Your task to perform on an android device: install app "Truecaller" Image 0: 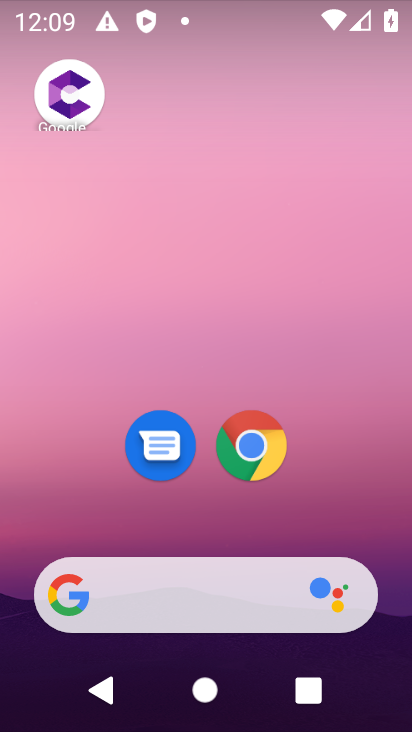
Step 0: drag from (228, 518) to (58, 458)
Your task to perform on an android device: install app "Truecaller" Image 1: 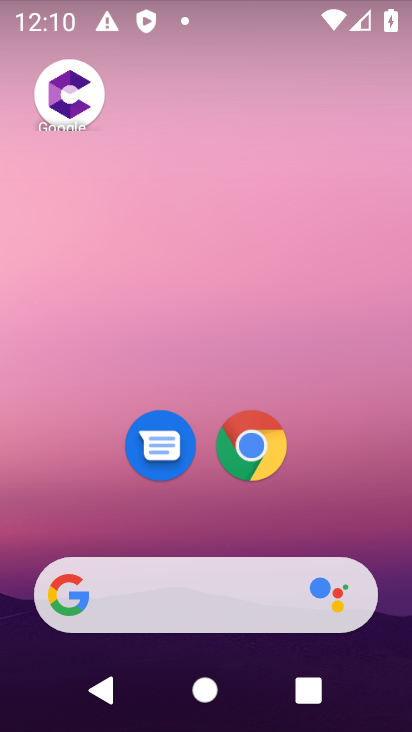
Step 1: drag from (217, 533) to (281, 15)
Your task to perform on an android device: install app "Truecaller" Image 2: 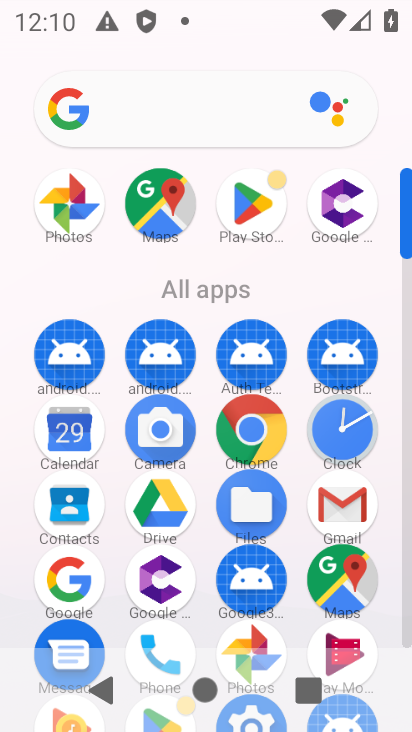
Step 2: drag from (214, 563) to (229, 313)
Your task to perform on an android device: install app "Truecaller" Image 3: 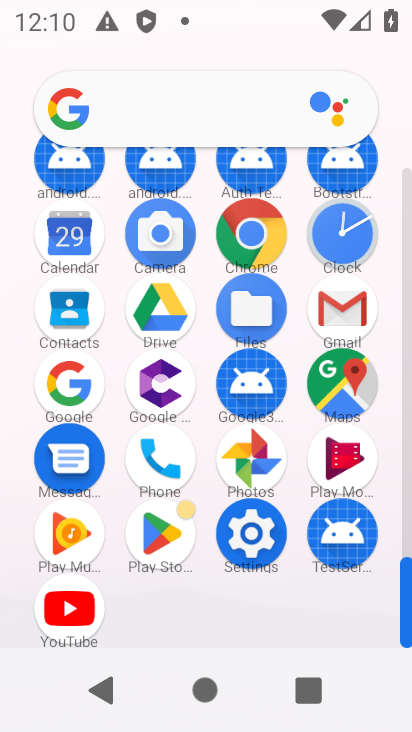
Step 3: click (157, 534)
Your task to perform on an android device: install app "Truecaller" Image 4: 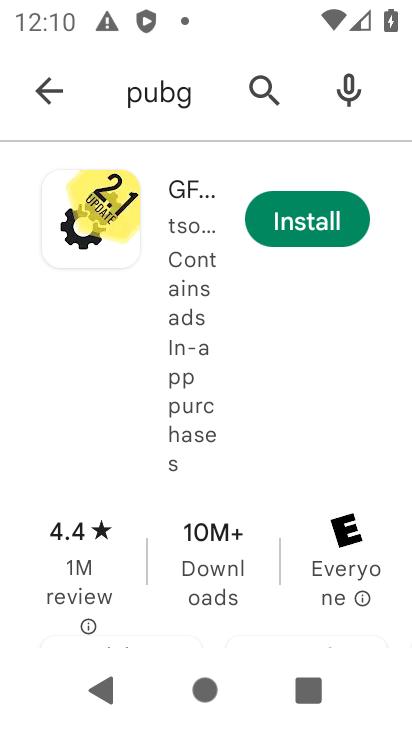
Step 4: click (167, 89)
Your task to perform on an android device: install app "Truecaller" Image 5: 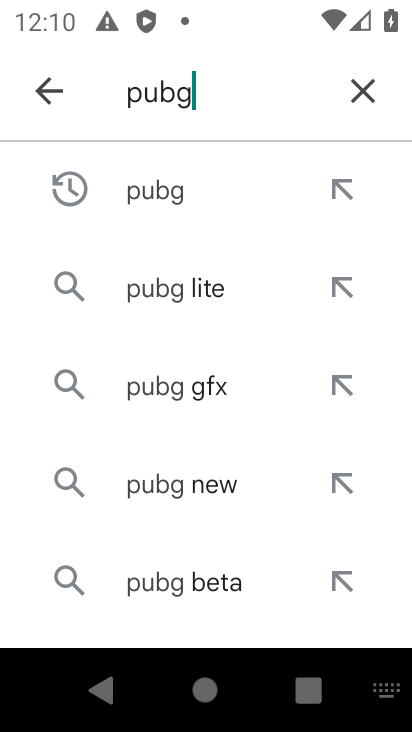
Step 5: click (367, 91)
Your task to perform on an android device: install app "Truecaller" Image 6: 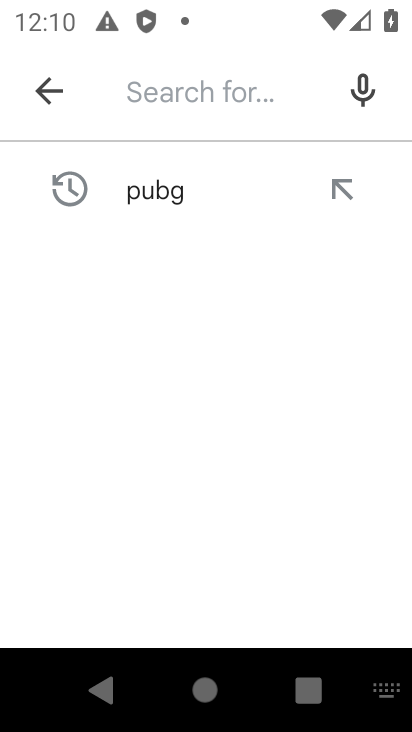
Step 6: type "truecaller"
Your task to perform on an android device: install app "Truecaller" Image 7: 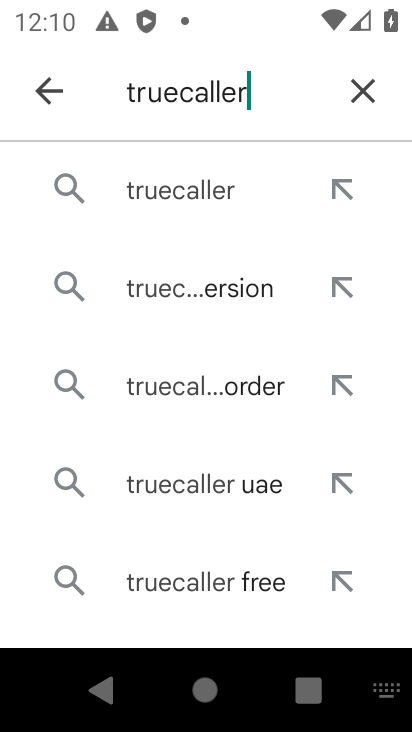
Step 7: click (179, 199)
Your task to perform on an android device: install app "Truecaller" Image 8: 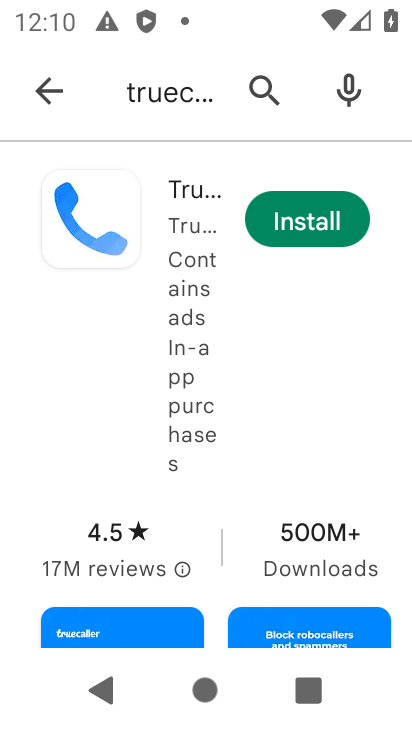
Step 8: click (306, 228)
Your task to perform on an android device: install app "Truecaller" Image 9: 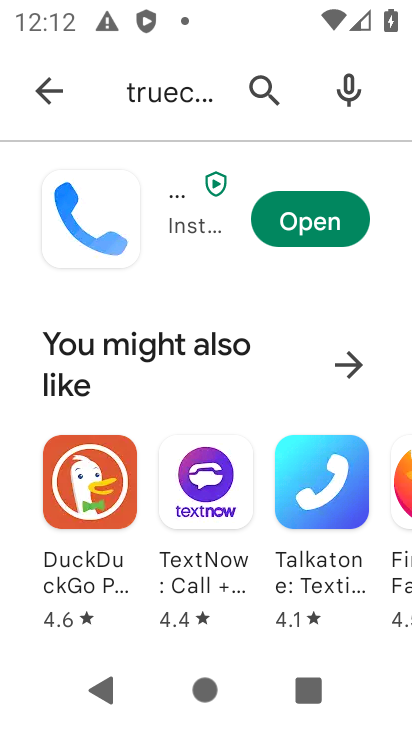
Step 9: task complete